Your task to perform on an android device: Open settings on Google Maps Image 0: 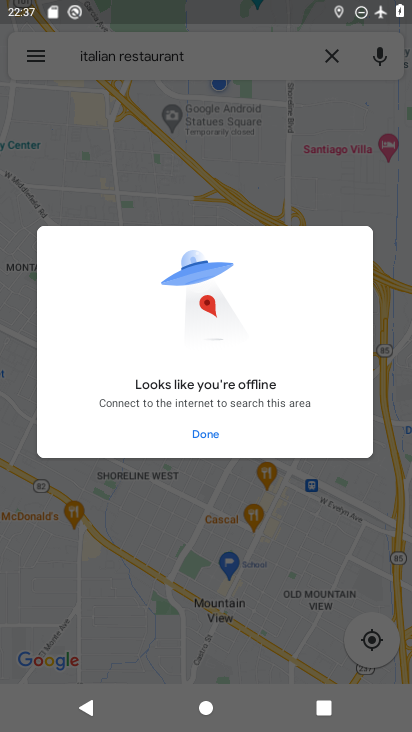
Step 0: press home button
Your task to perform on an android device: Open settings on Google Maps Image 1: 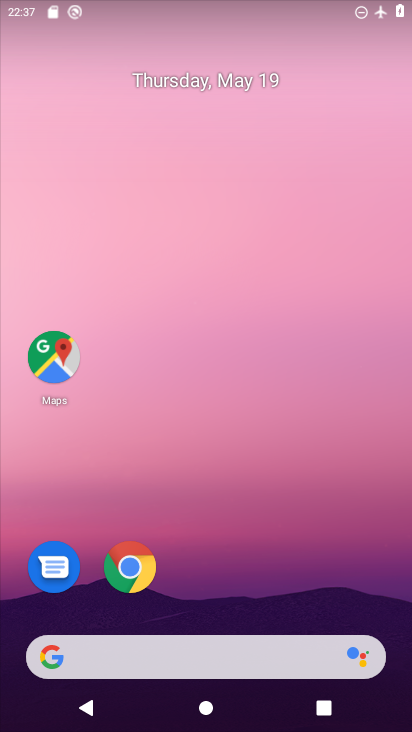
Step 1: click (51, 356)
Your task to perform on an android device: Open settings on Google Maps Image 2: 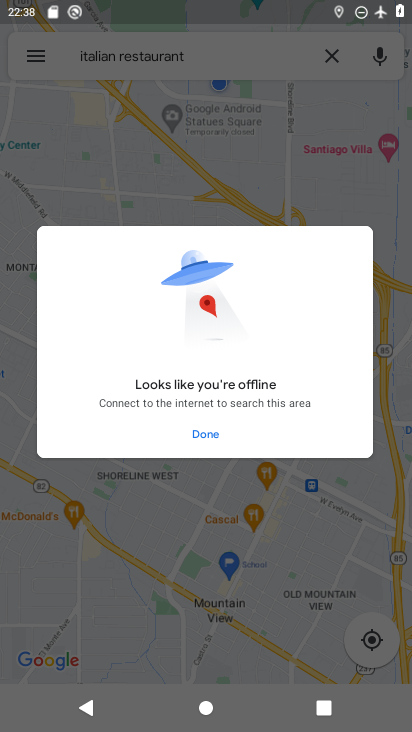
Step 2: click (206, 423)
Your task to perform on an android device: Open settings on Google Maps Image 3: 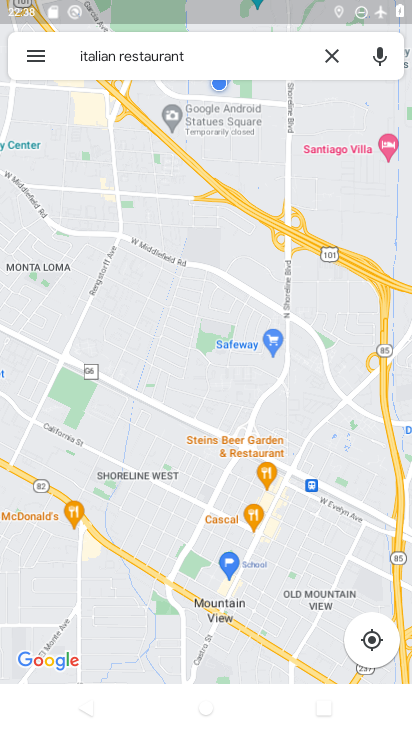
Step 3: click (38, 51)
Your task to perform on an android device: Open settings on Google Maps Image 4: 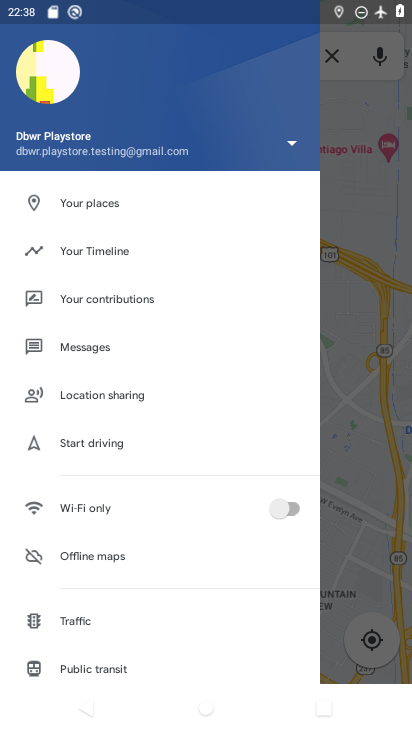
Step 4: drag from (125, 635) to (133, 143)
Your task to perform on an android device: Open settings on Google Maps Image 5: 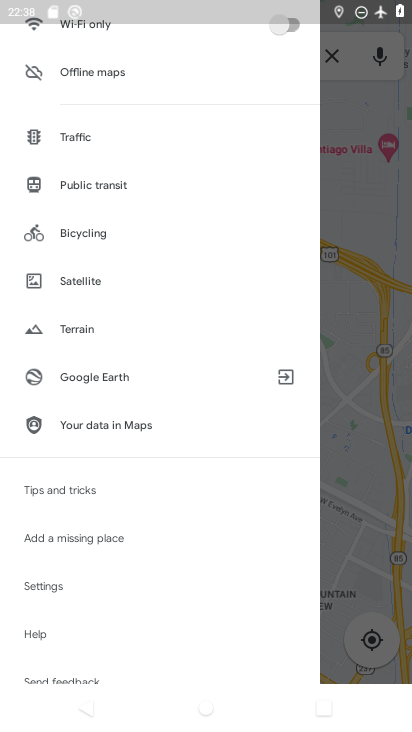
Step 5: click (77, 580)
Your task to perform on an android device: Open settings on Google Maps Image 6: 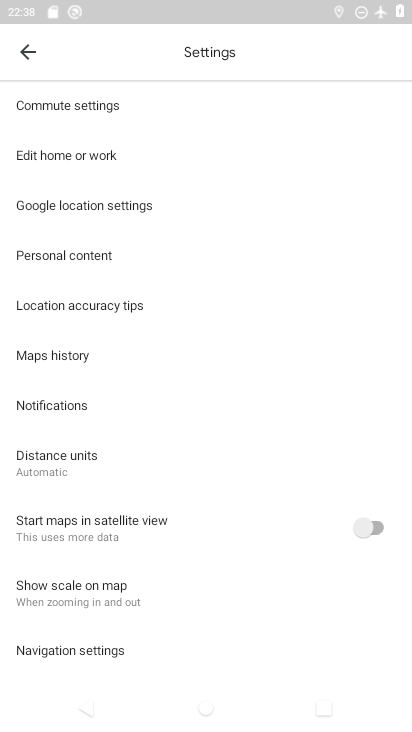
Step 6: task complete